Your task to perform on an android device: What is the news today? Image 0: 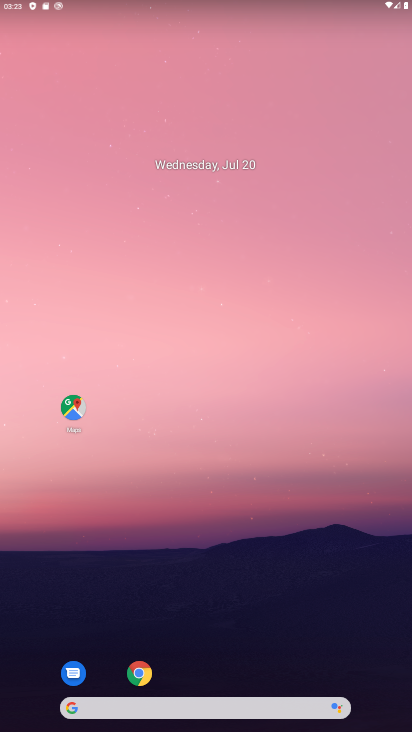
Step 0: drag from (200, 624) to (29, 378)
Your task to perform on an android device: What is the news today? Image 1: 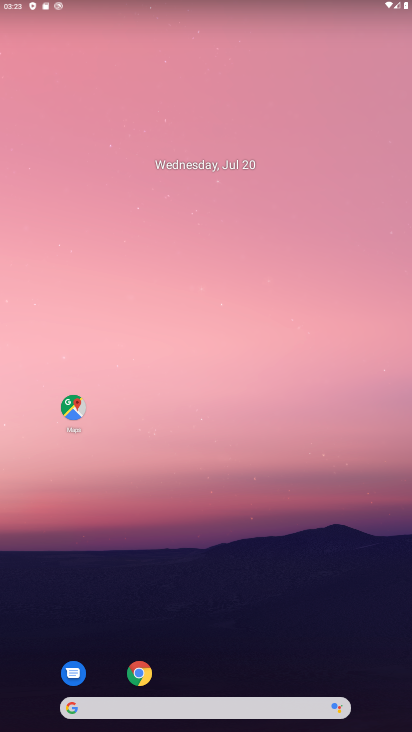
Step 1: drag from (196, 666) to (91, 419)
Your task to perform on an android device: What is the news today? Image 2: 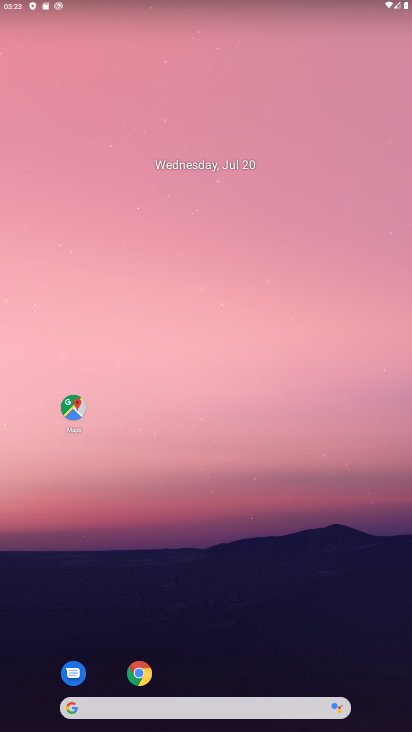
Step 2: drag from (314, 632) to (17, 191)
Your task to perform on an android device: What is the news today? Image 3: 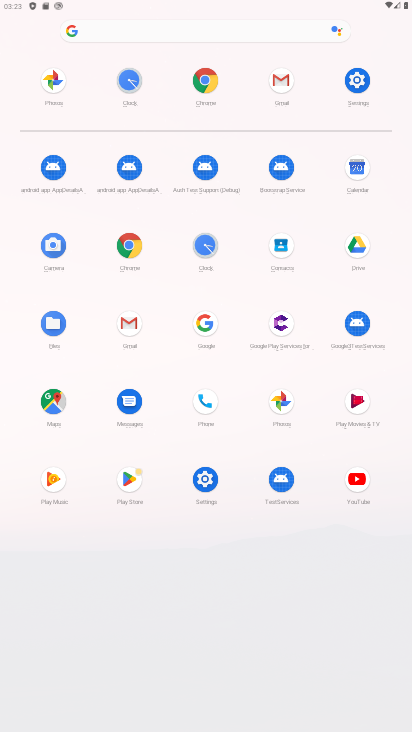
Step 3: click (213, 79)
Your task to perform on an android device: What is the news today? Image 4: 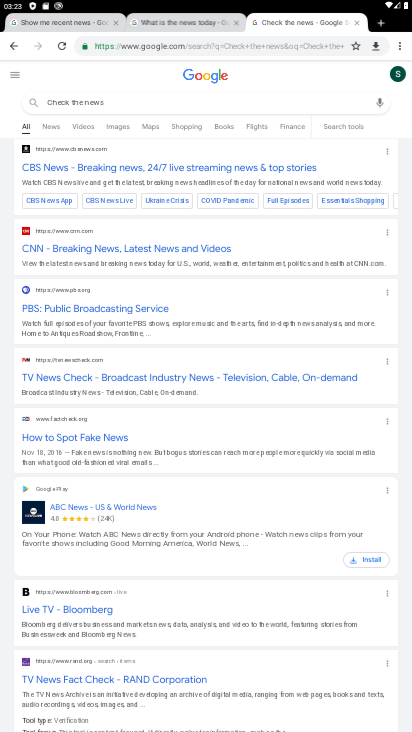
Step 4: click (383, 25)
Your task to perform on an android device: What is the news today? Image 5: 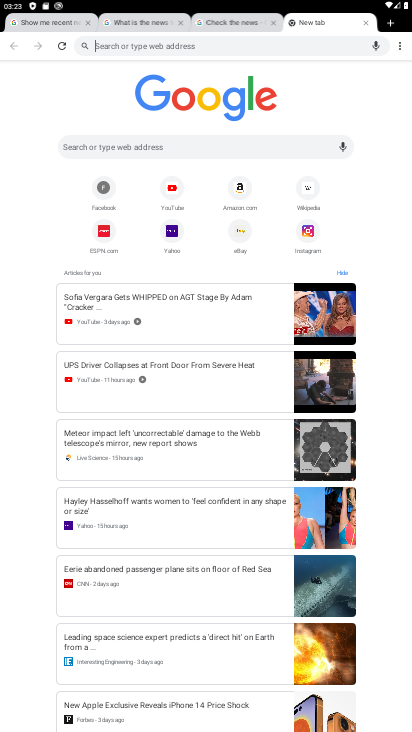
Step 5: click (209, 132)
Your task to perform on an android device: What is the news today? Image 6: 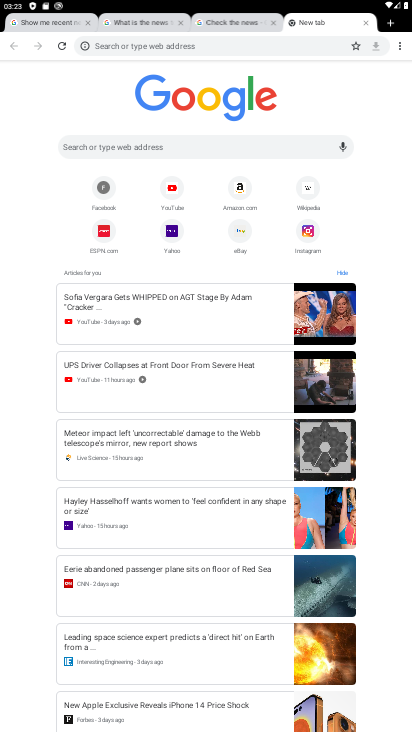
Step 6: type "What is the news today "
Your task to perform on an android device: What is the news today? Image 7: 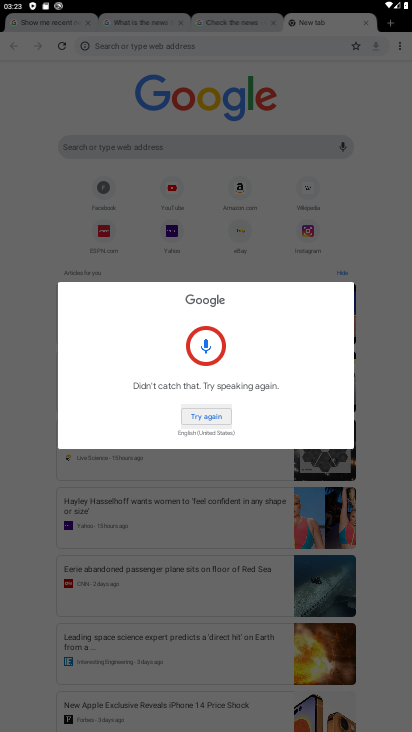
Step 7: click (26, 358)
Your task to perform on an android device: What is the news today? Image 8: 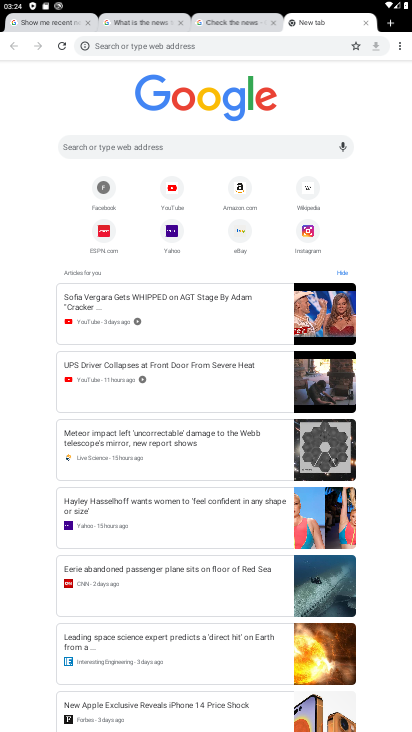
Step 8: click (209, 46)
Your task to perform on an android device: What is the news today? Image 9: 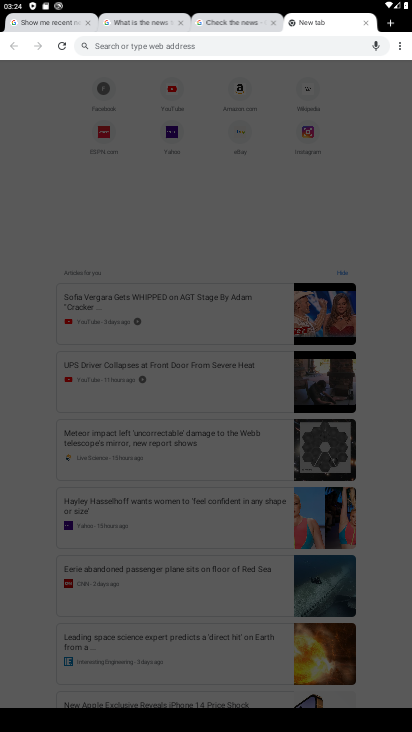
Step 9: click (227, 42)
Your task to perform on an android device: What is the news today? Image 10: 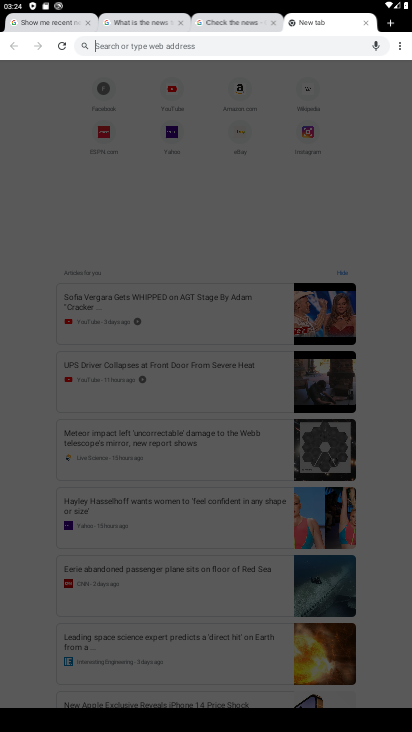
Step 10: type "What is the news today "
Your task to perform on an android device: What is the news today? Image 11: 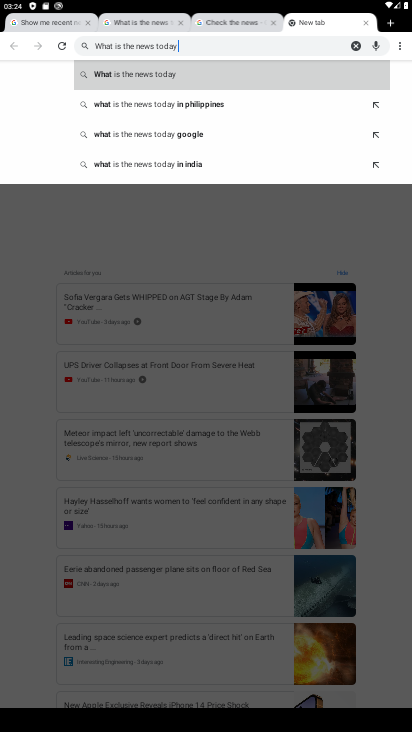
Step 11: click (247, 72)
Your task to perform on an android device: What is the news today? Image 12: 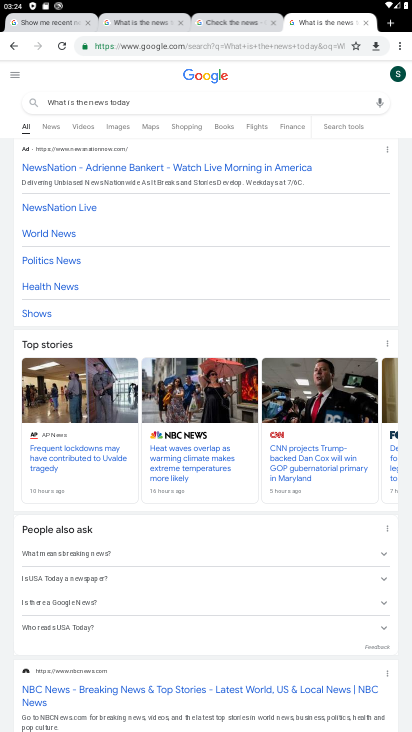
Step 12: task complete